Your task to perform on an android device: Open Maps and search for coffee Image 0: 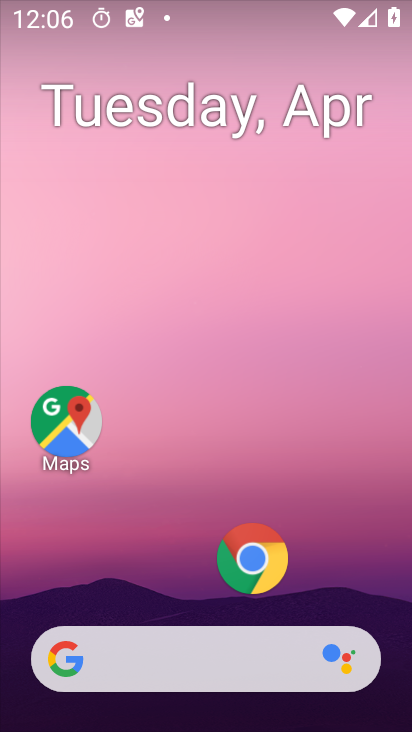
Step 0: click (70, 428)
Your task to perform on an android device: Open Maps and search for coffee Image 1: 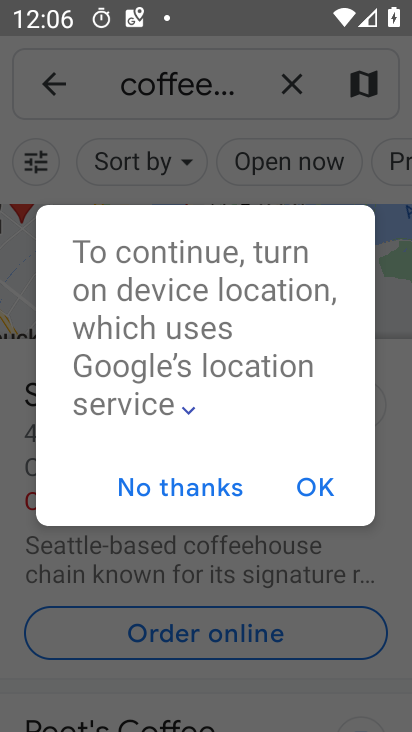
Step 1: click (303, 485)
Your task to perform on an android device: Open Maps and search for coffee Image 2: 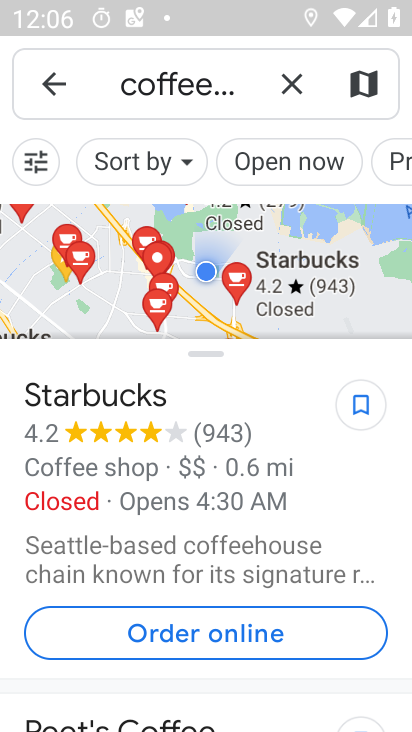
Step 2: click (172, 95)
Your task to perform on an android device: Open Maps and search for coffee Image 3: 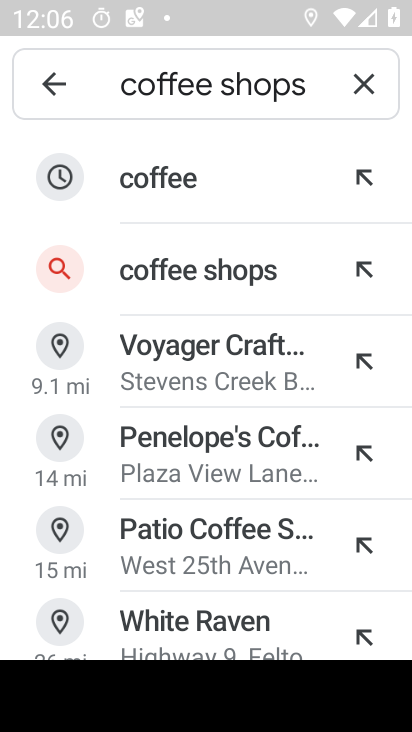
Step 3: click (371, 94)
Your task to perform on an android device: Open Maps and search for coffee Image 4: 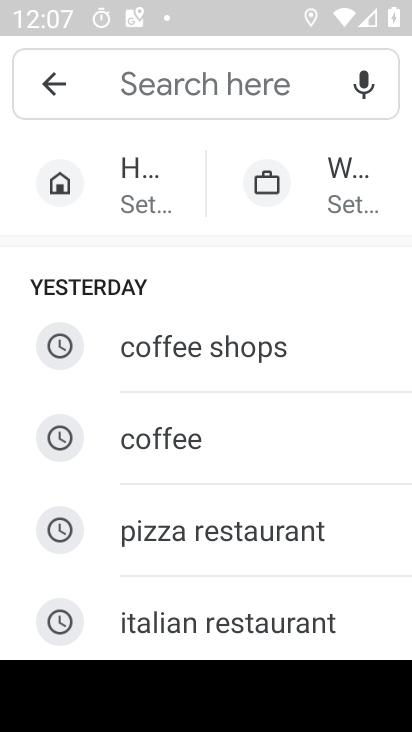
Step 4: type "coffee"
Your task to perform on an android device: Open Maps and search for coffee Image 5: 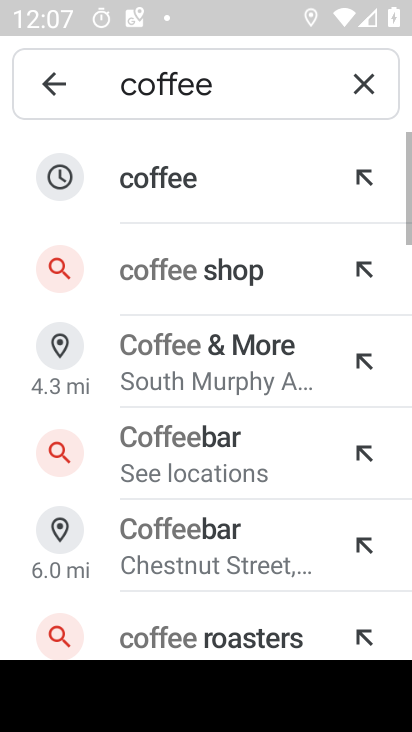
Step 5: click (182, 174)
Your task to perform on an android device: Open Maps and search for coffee Image 6: 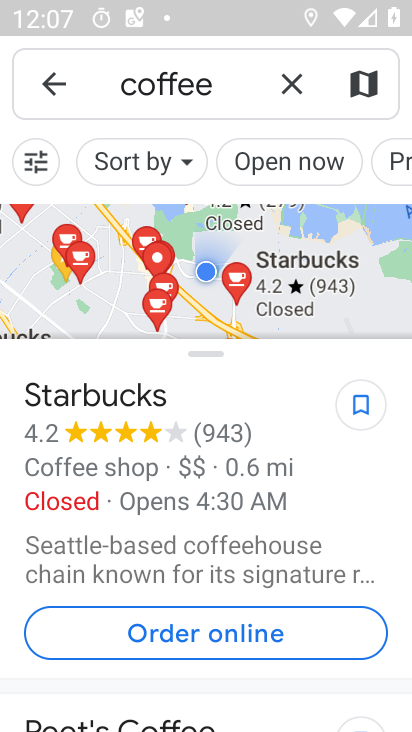
Step 6: task complete